Your task to perform on an android device: set an alarm Image 0: 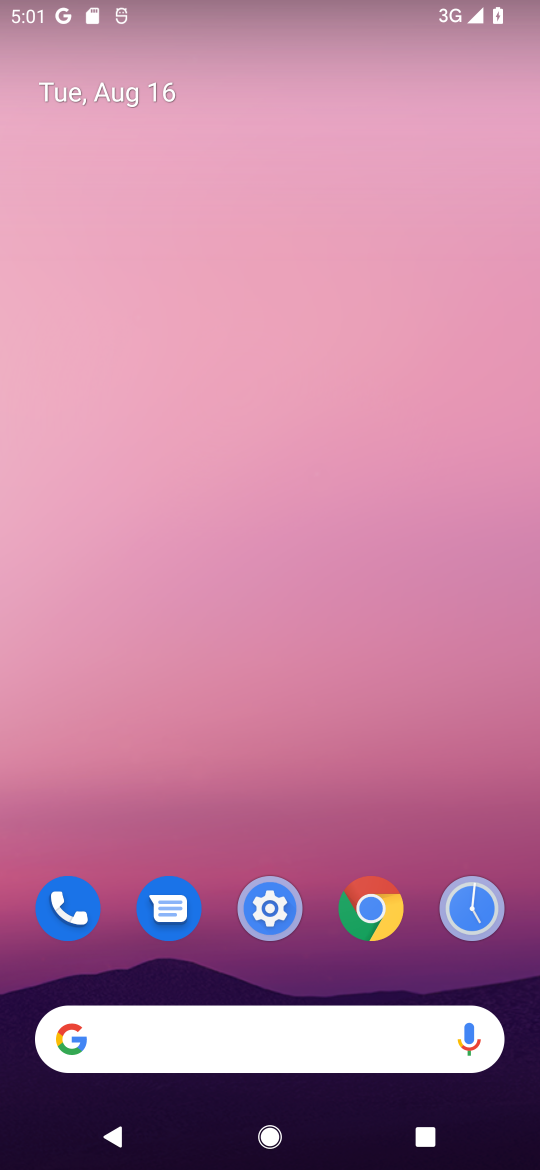
Step 0: click (471, 901)
Your task to perform on an android device: set an alarm Image 1: 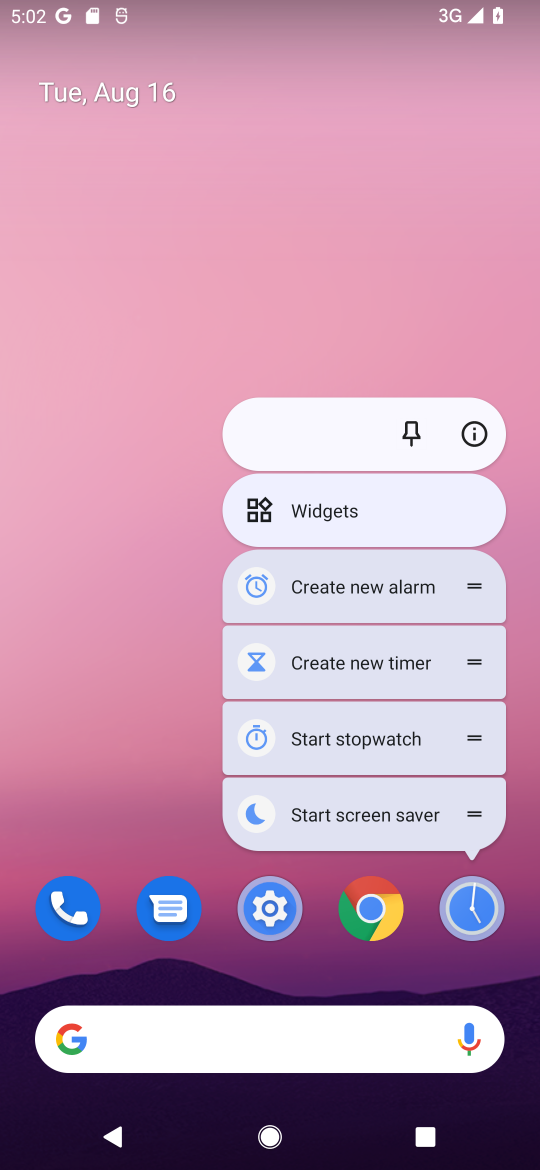
Step 1: click (471, 901)
Your task to perform on an android device: set an alarm Image 2: 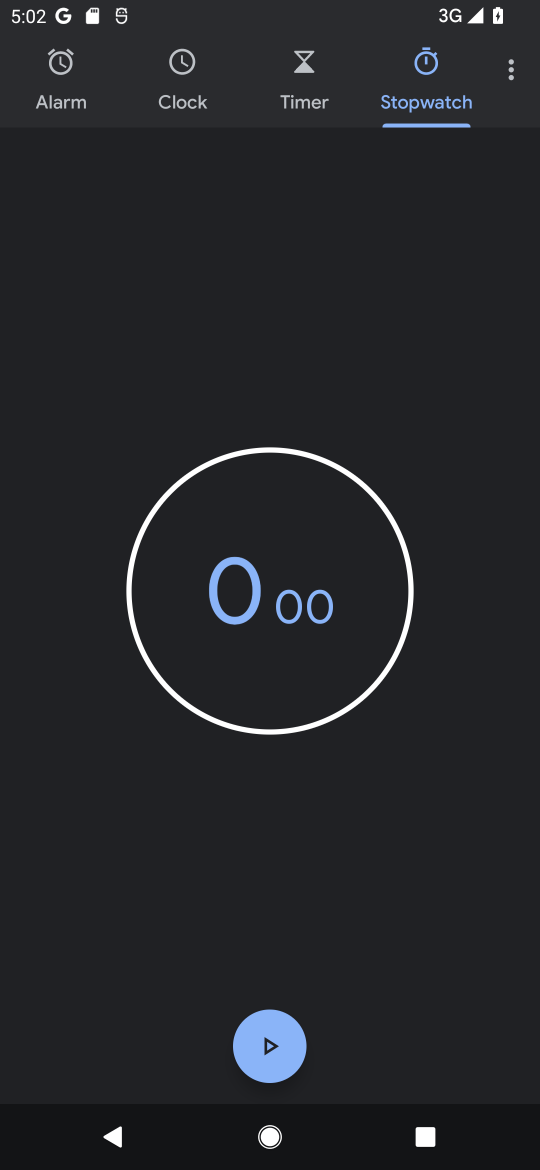
Step 2: click (86, 114)
Your task to perform on an android device: set an alarm Image 3: 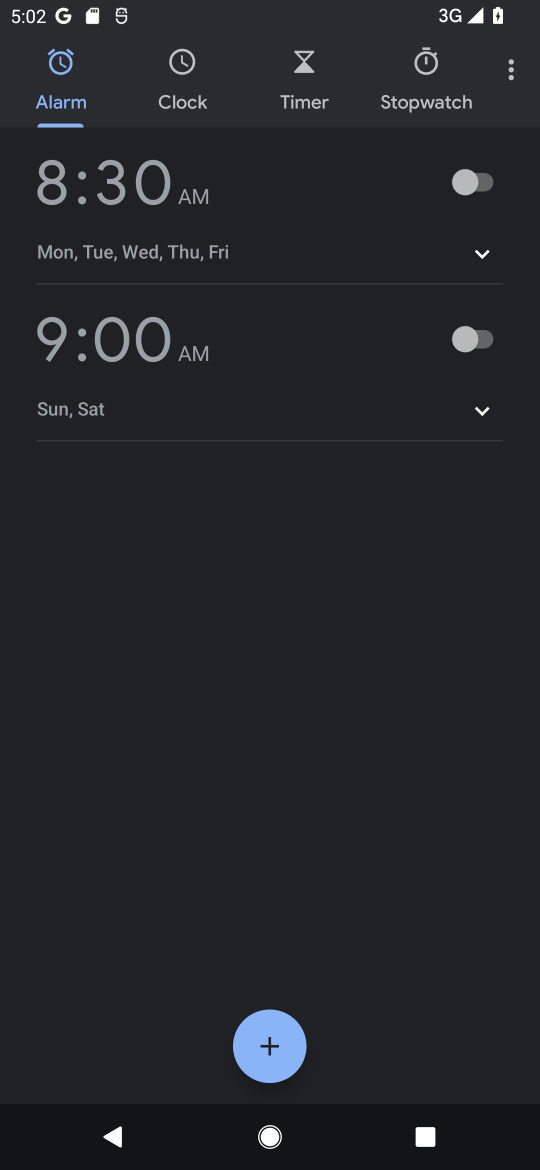
Step 3: click (476, 196)
Your task to perform on an android device: set an alarm Image 4: 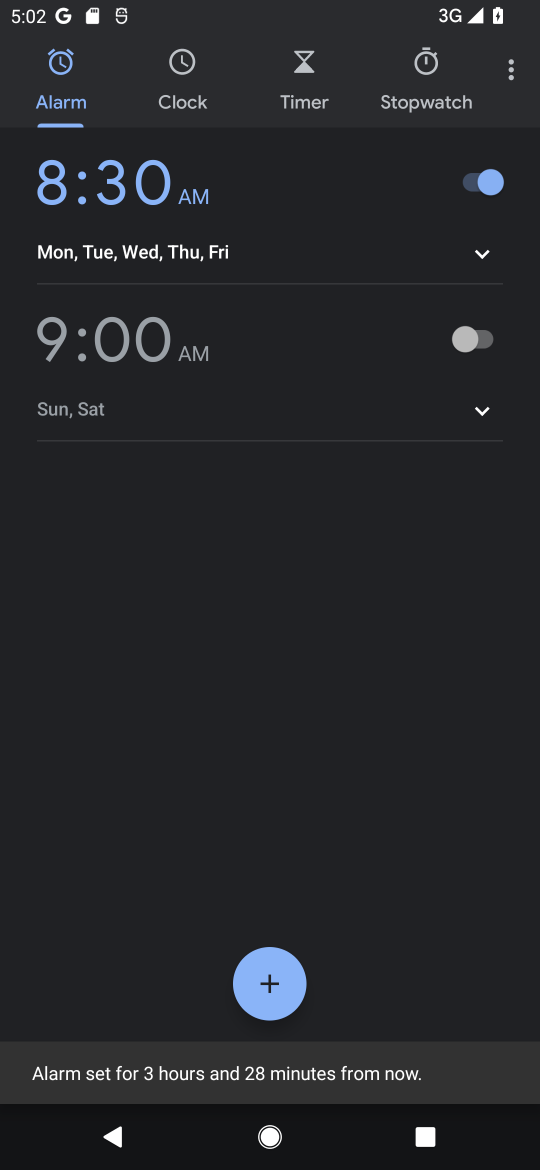
Step 4: task complete